Your task to perform on an android device: turn off picture-in-picture Image 0: 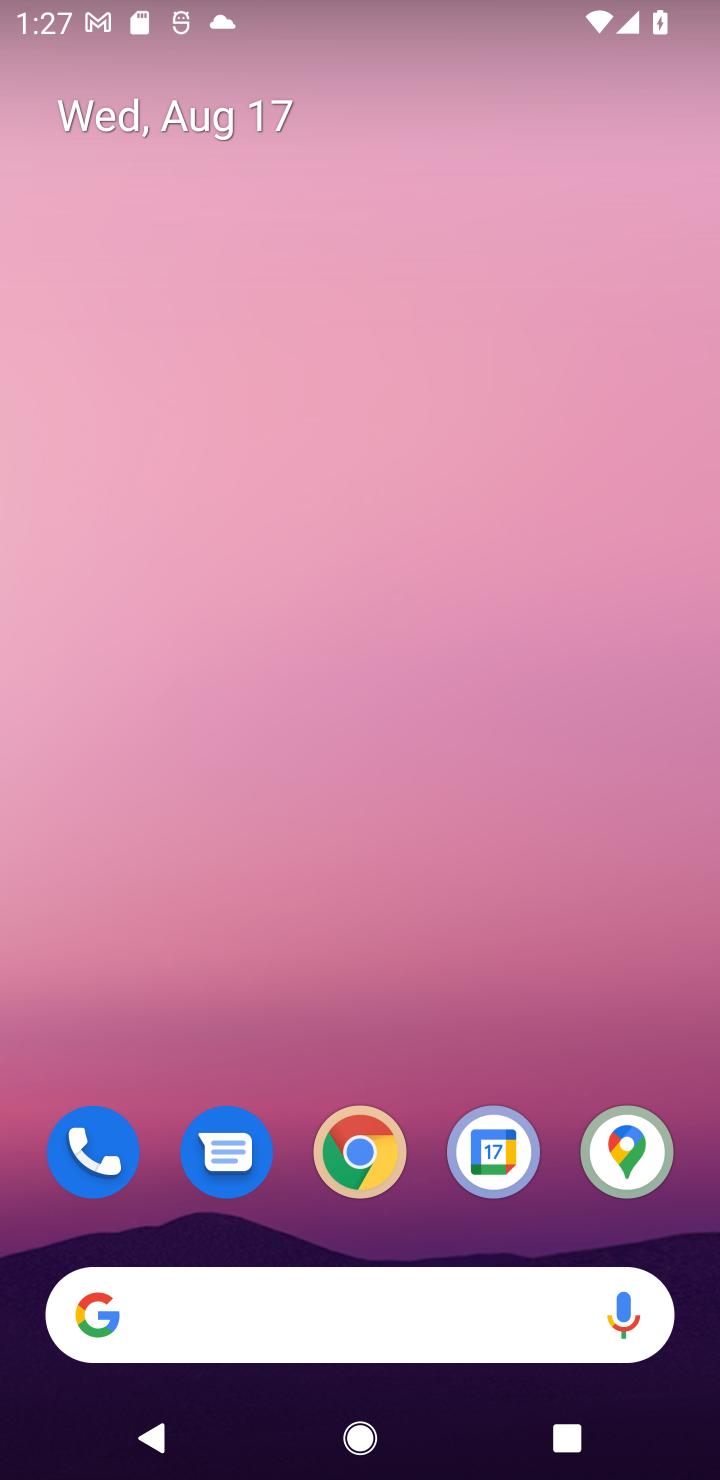
Step 0: drag from (560, 1214) to (316, 66)
Your task to perform on an android device: turn off picture-in-picture Image 1: 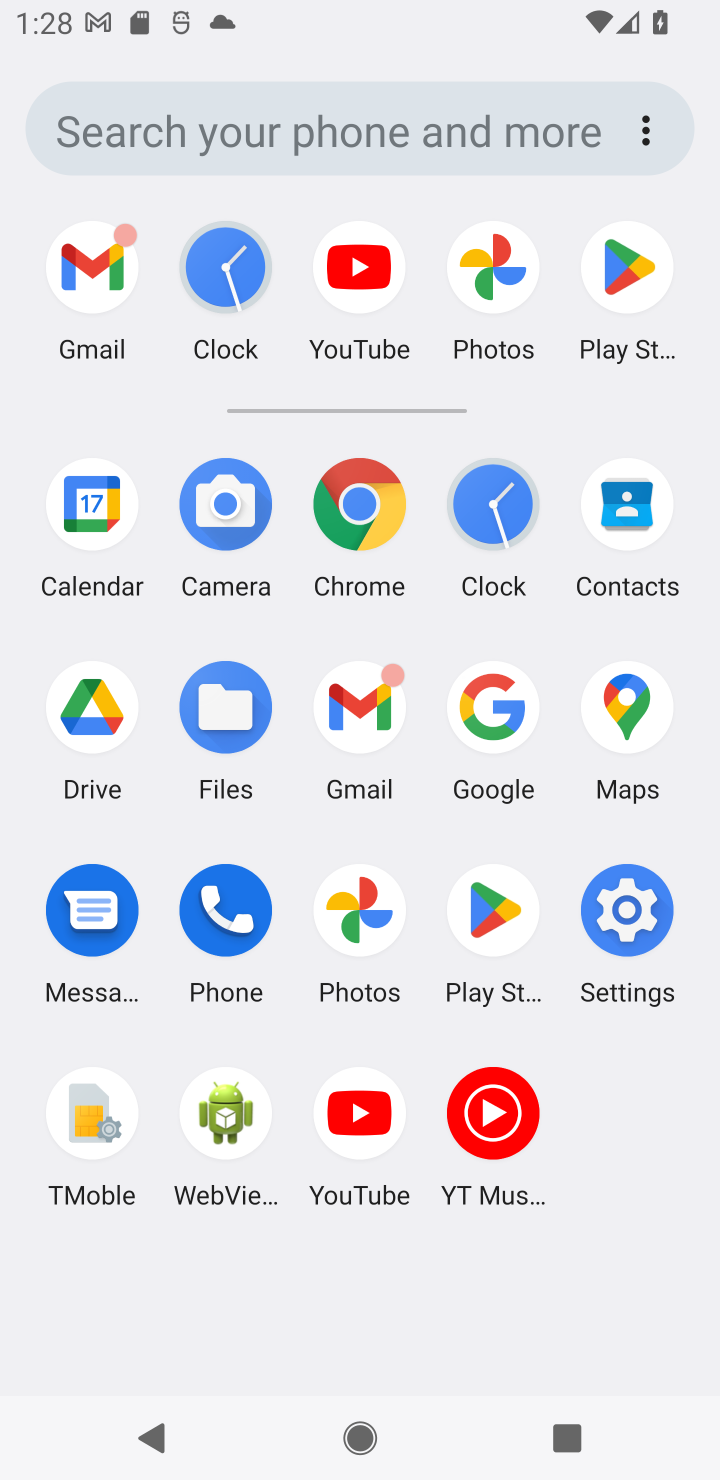
Step 1: click (360, 537)
Your task to perform on an android device: turn off picture-in-picture Image 2: 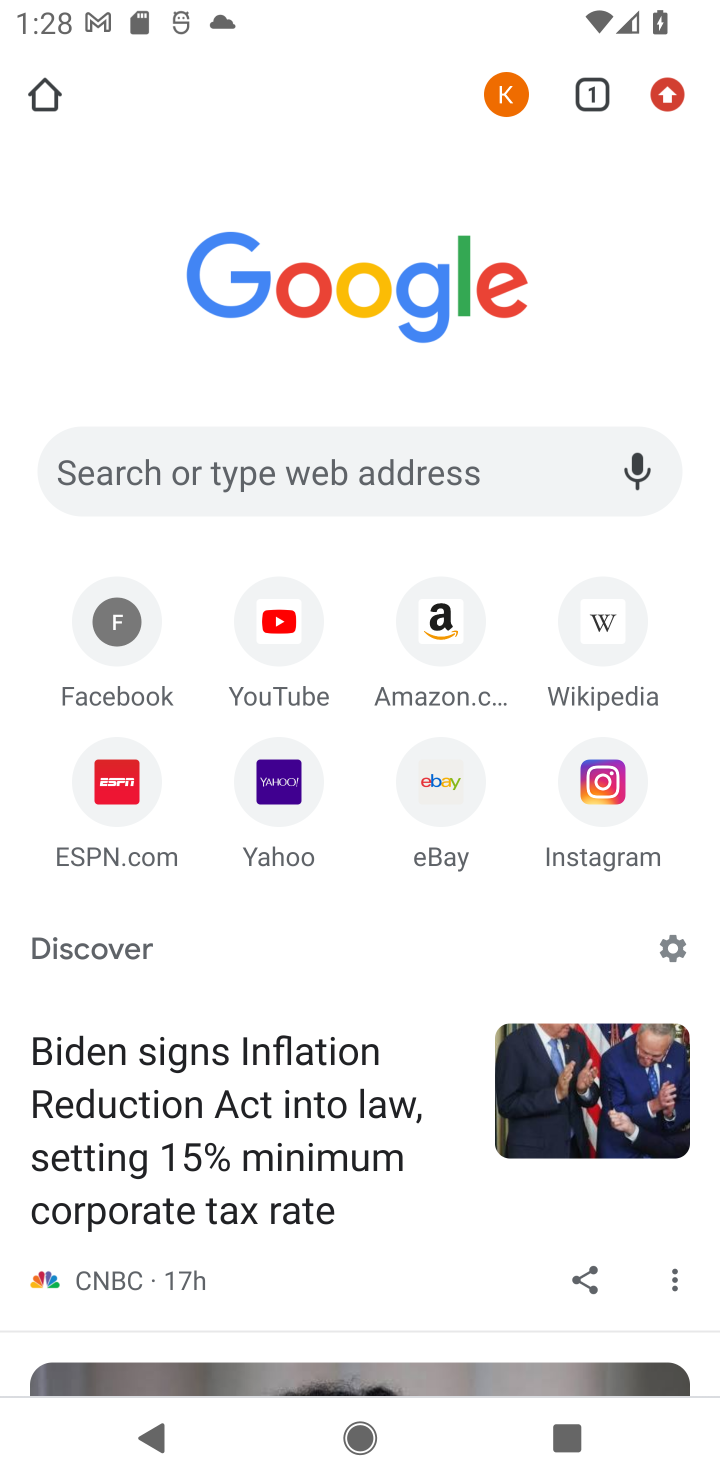
Step 2: task complete